Your task to perform on an android device: Clear the cart on amazon.com. Search for "usb-a to usb-b" on amazon.com, select the first entry, and add it to the cart. Image 0: 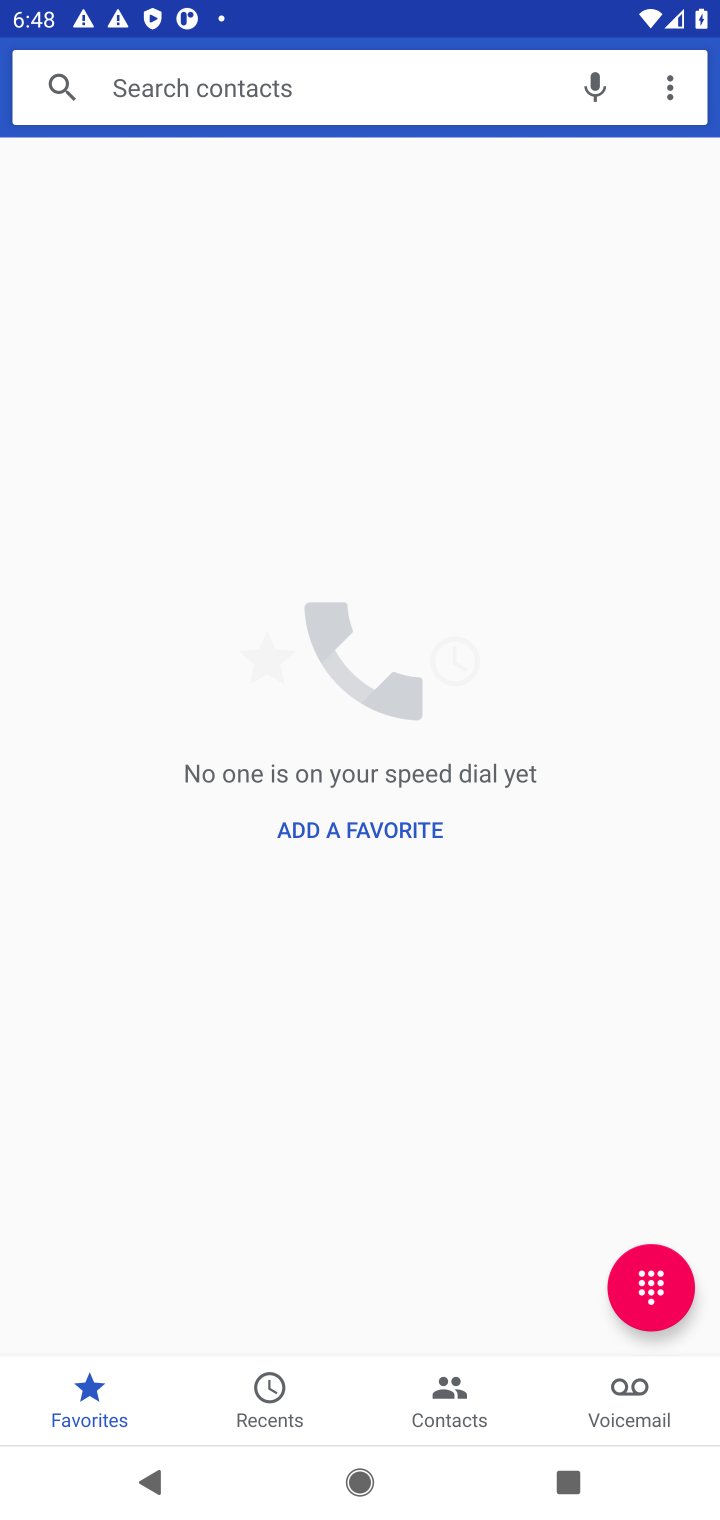
Step 0: press home button
Your task to perform on an android device: Clear the cart on amazon.com. Search for "usb-a to usb-b" on amazon.com, select the first entry, and add it to the cart. Image 1: 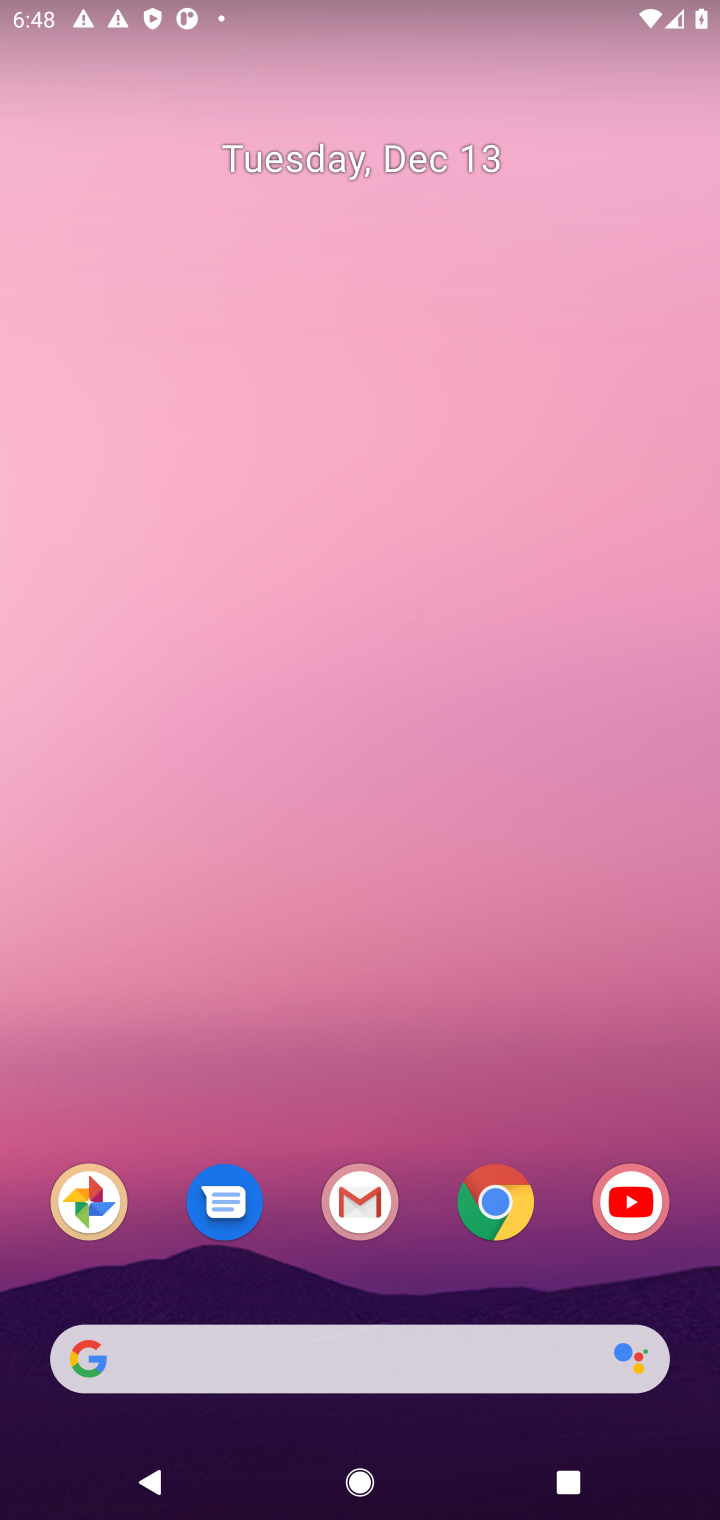
Step 1: click (497, 1194)
Your task to perform on an android device: Clear the cart on amazon.com. Search for "usb-a to usb-b" on amazon.com, select the first entry, and add it to the cart. Image 2: 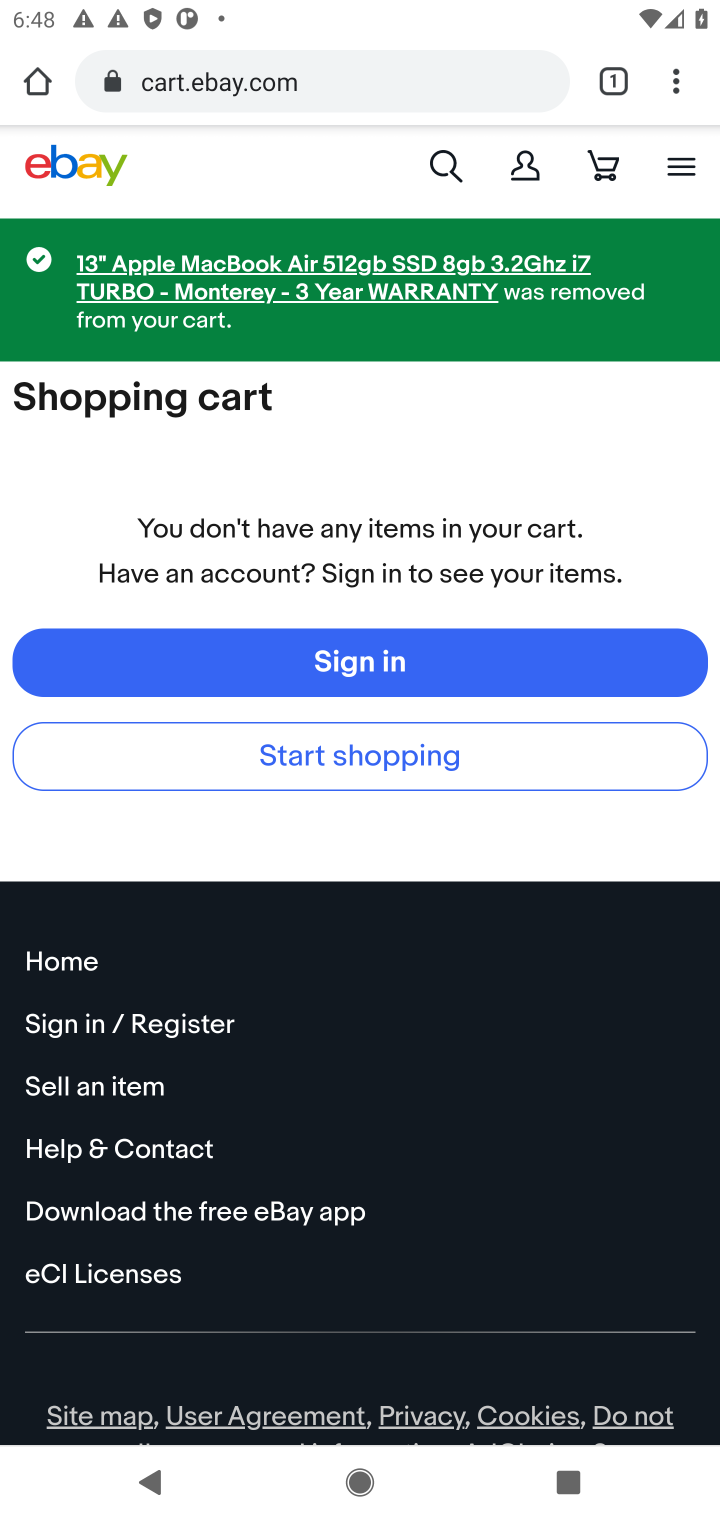
Step 2: click (230, 82)
Your task to perform on an android device: Clear the cart on amazon.com. Search for "usb-a to usb-b" on amazon.com, select the first entry, and add it to the cart. Image 3: 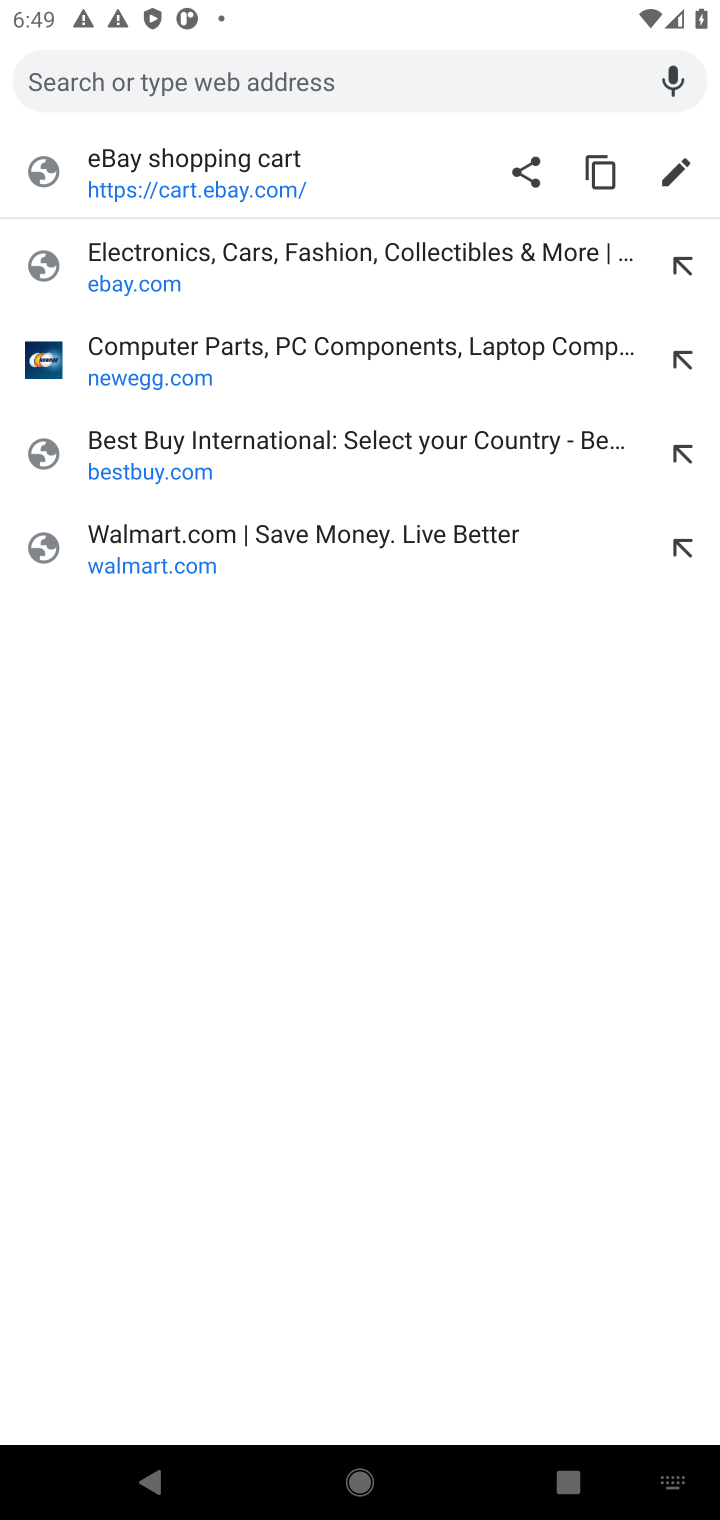
Step 3: type "amazon.com"
Your task to perform on an android device: Clear the cart on amazon.com. Search for "usb-a to usb-b" on amazon.com, select the first entry, and add it to the cart. Image 4: 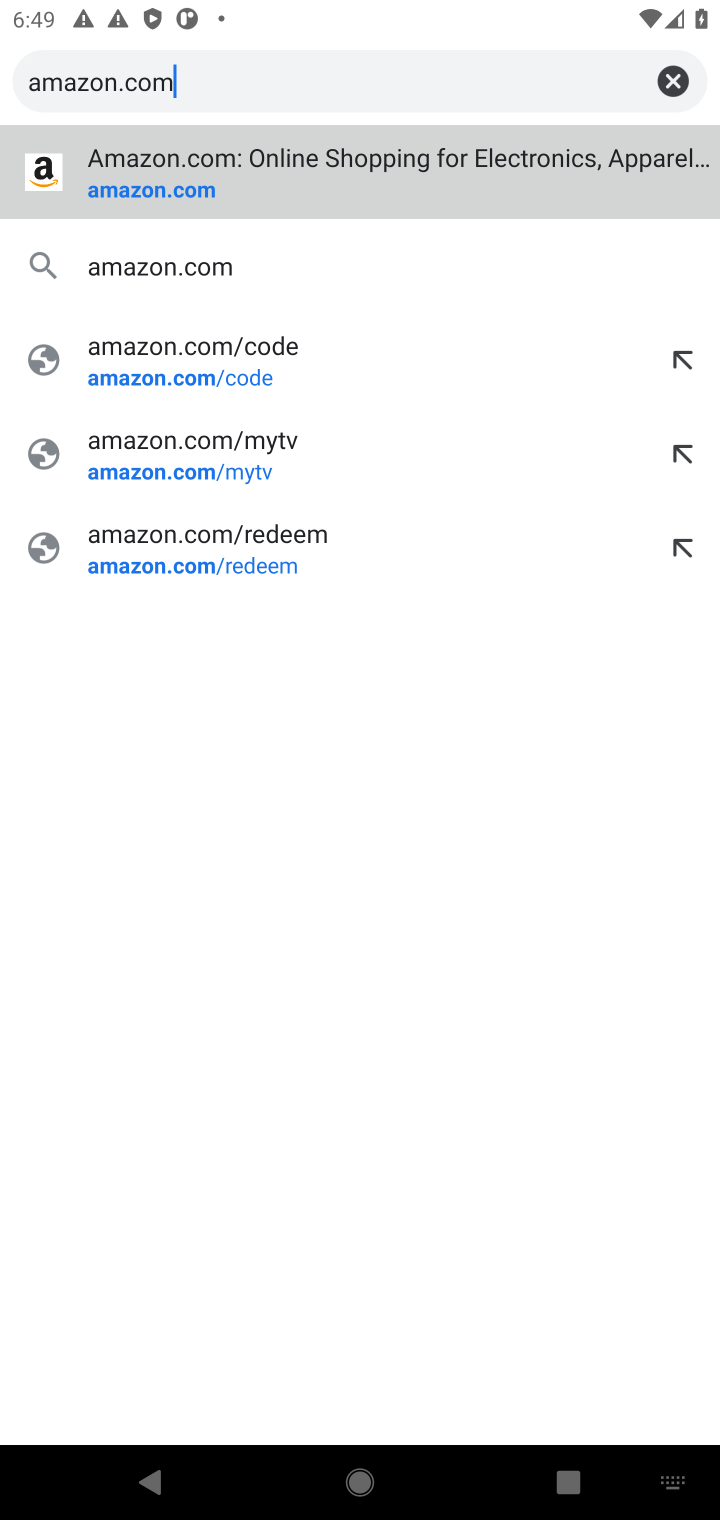
Step 4: click (174, 201)
Your task to perform on an android device: Clear the cart on amazon.com. Search for "usb-a to usb-b" on amazon.com, select the first entry, and add it to the cart. Image 5: 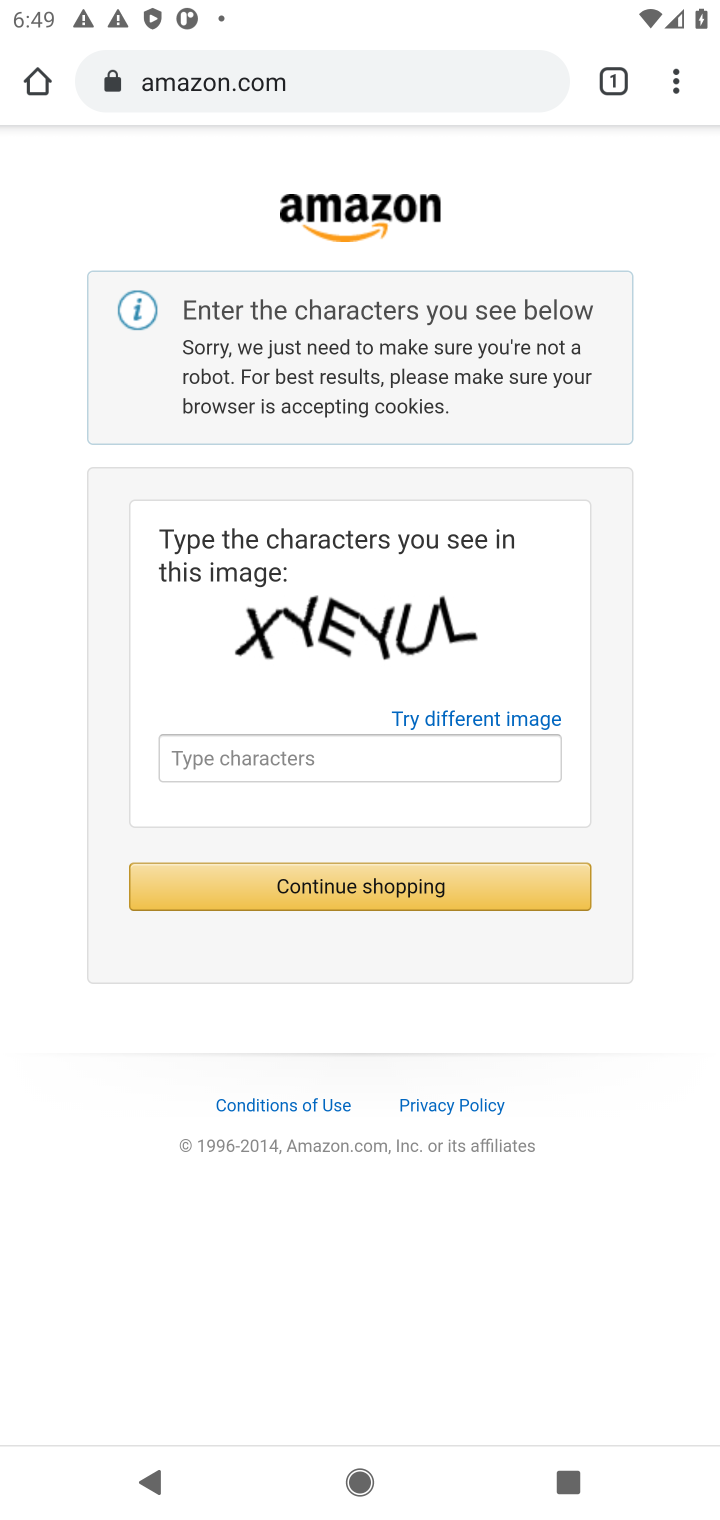
Step 5: click (290, 760)
Your task to perform on an android device: Clear the cart on amazon.com. Search for "usb-a to usb-b" on amazon.com, select the first entry, and add it to the cart. Image 6: 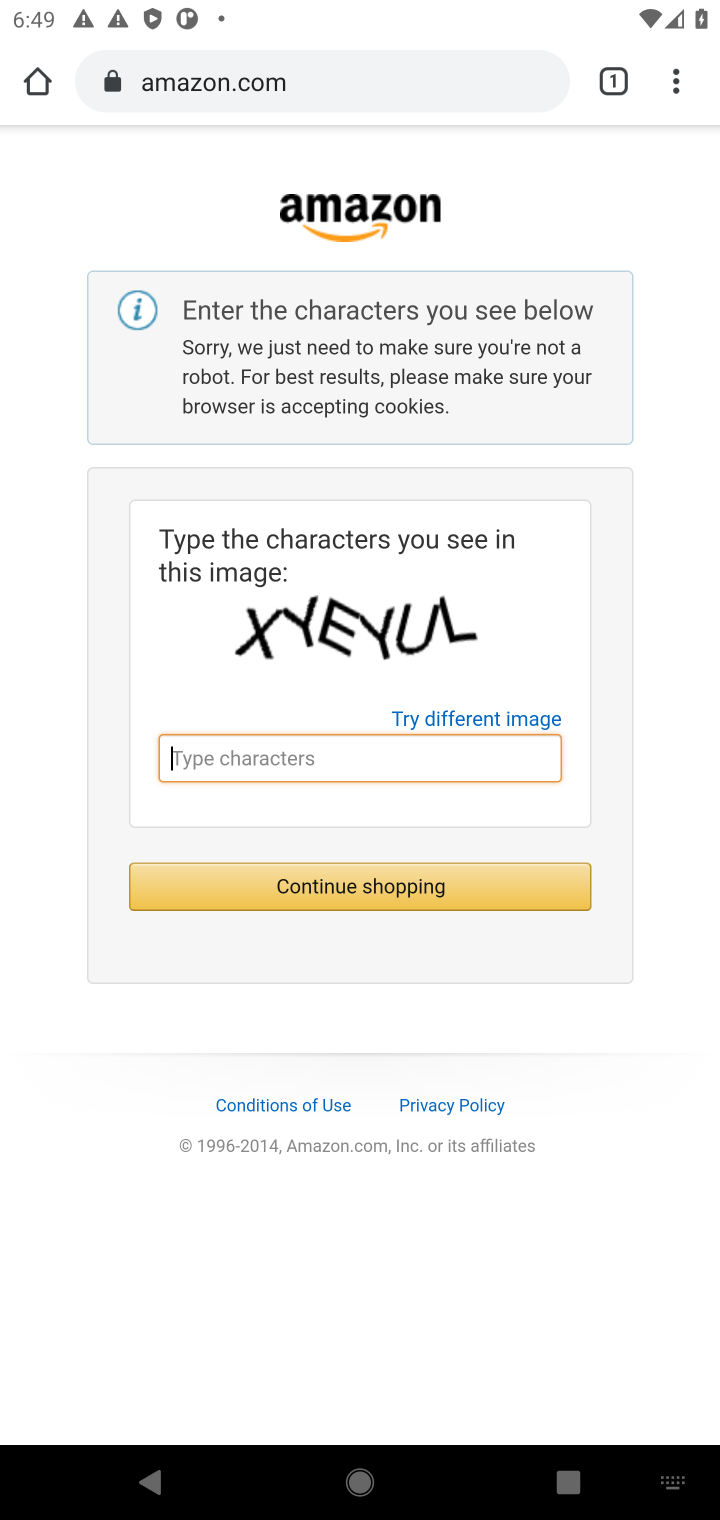
Step 6: type "XYEYUL"
Your task to perform on an android device: Clear the cart on amazon.com. Search for "usb-a to usb-b" on amazon.com, select the first entry, and add it to the cart. Image 7: 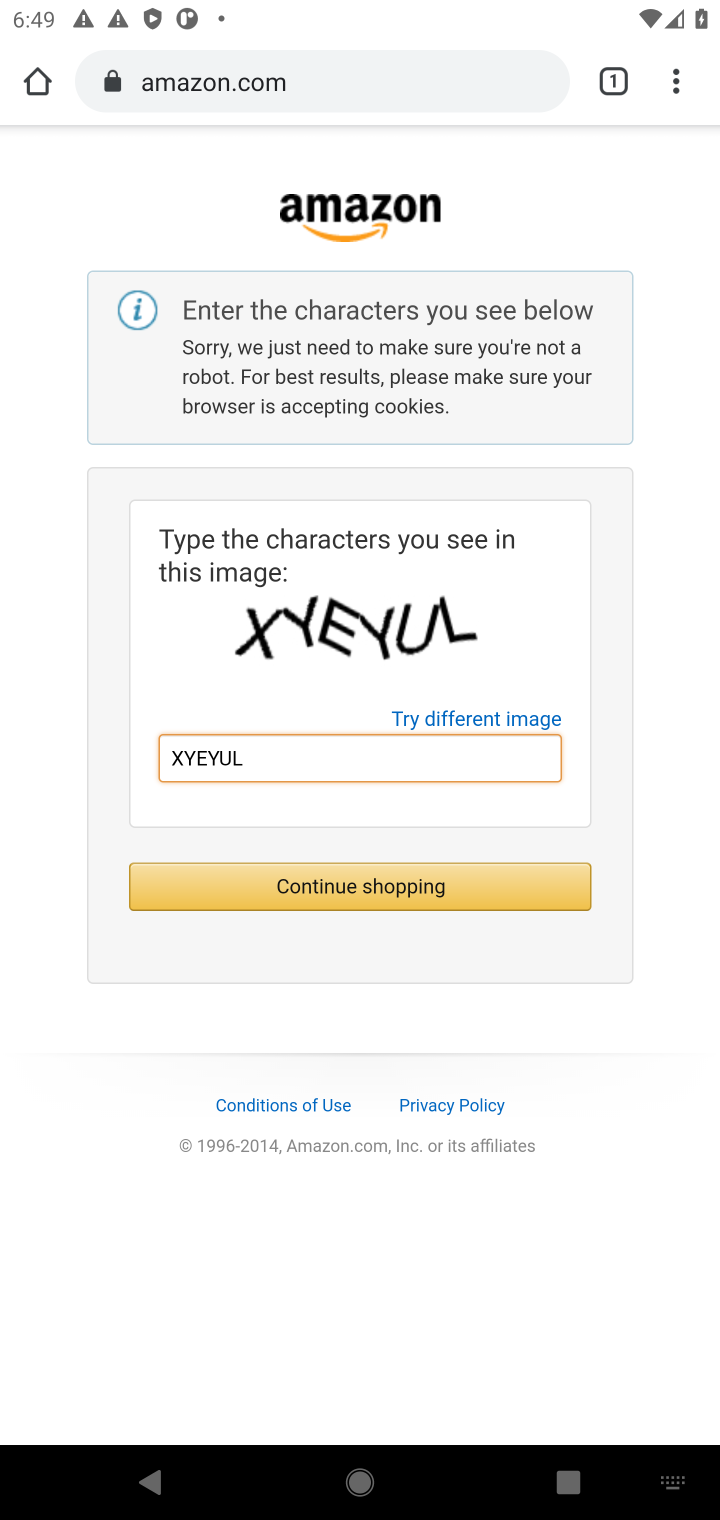
Step 7: click (376, 897)
Your task to perform on an android device: Clear the cart on amazon.com. Search for "usb-a to usb-b" on amazon.com, select the first entry, and add it to the cart. Image 8: 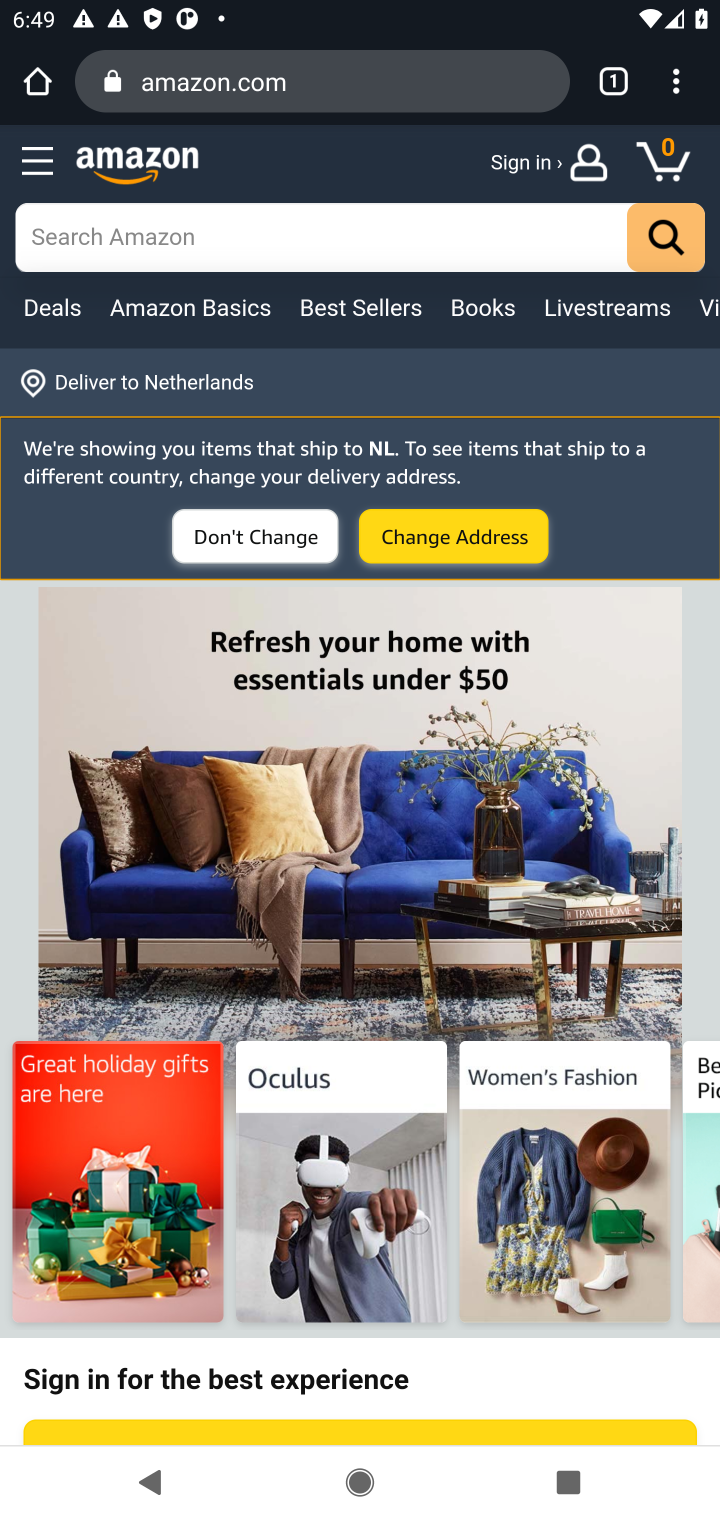
Step 8: click (665, 164)
Your task to perform on an android device: Clear the cart on amazon.com. Search for "usb-a to usb-b" on amazon.com, select the first entry, and add it to the cart. Image 9: 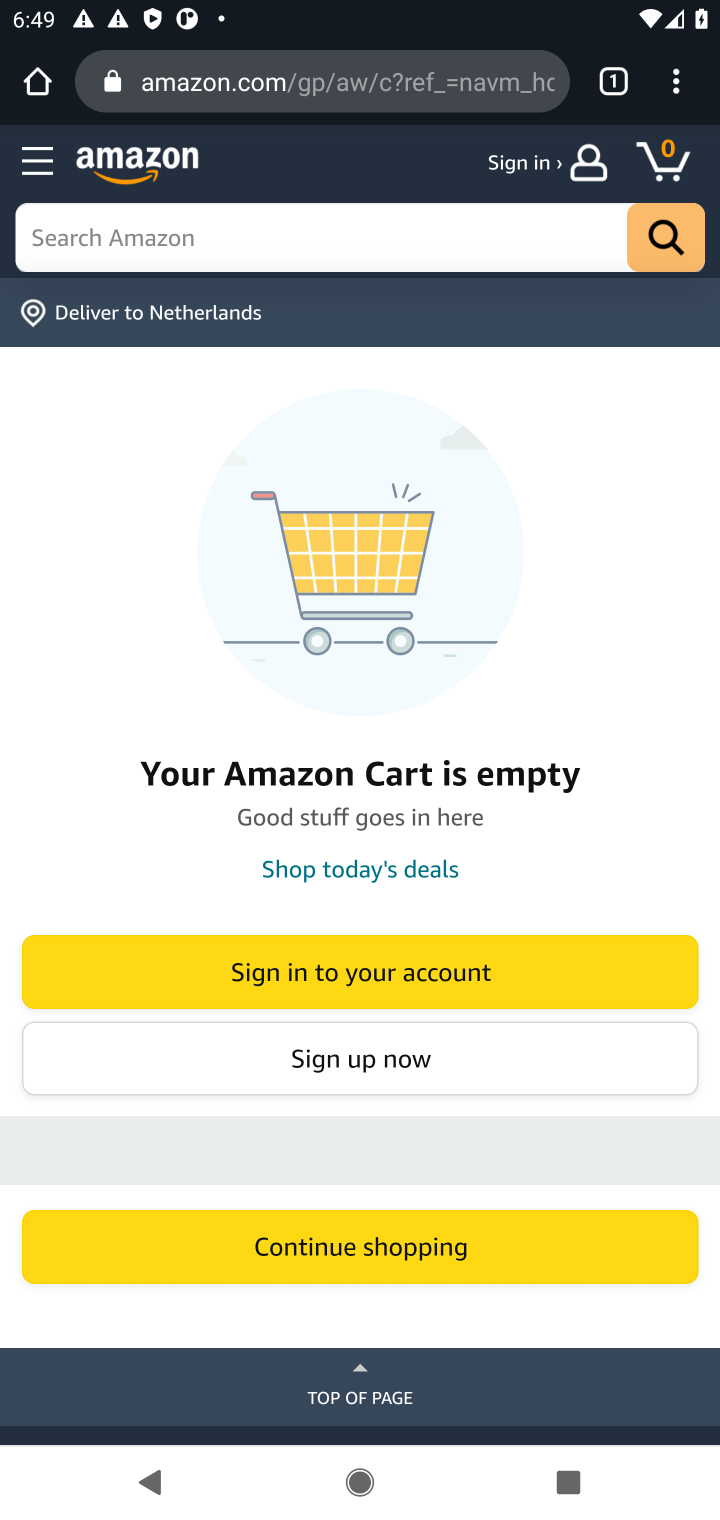
Step 9: click (142, 248)
Your task to perform on an android device: Clear the cart on amazon.com. Search for "usb-a to usb-b" on amazon.com, select the first entry, and add it to the cart. Image 10: 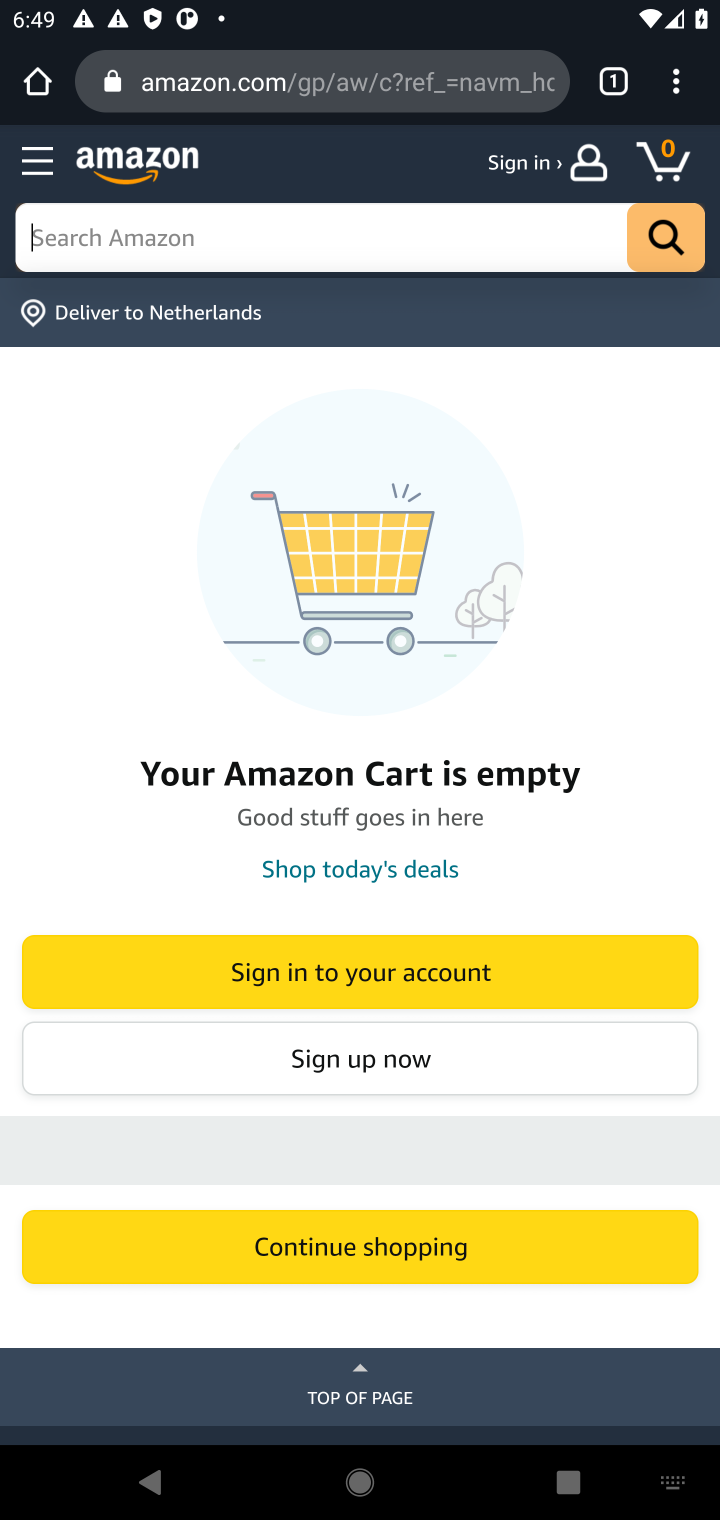
Step 10: type "usb-a to usb-b"
Your task to perform on an android device: Clear the cart on amazon.com. Search for "usb-a to usb-b" on amazon.com, select the first entry, and add it to the cart. Image 11: 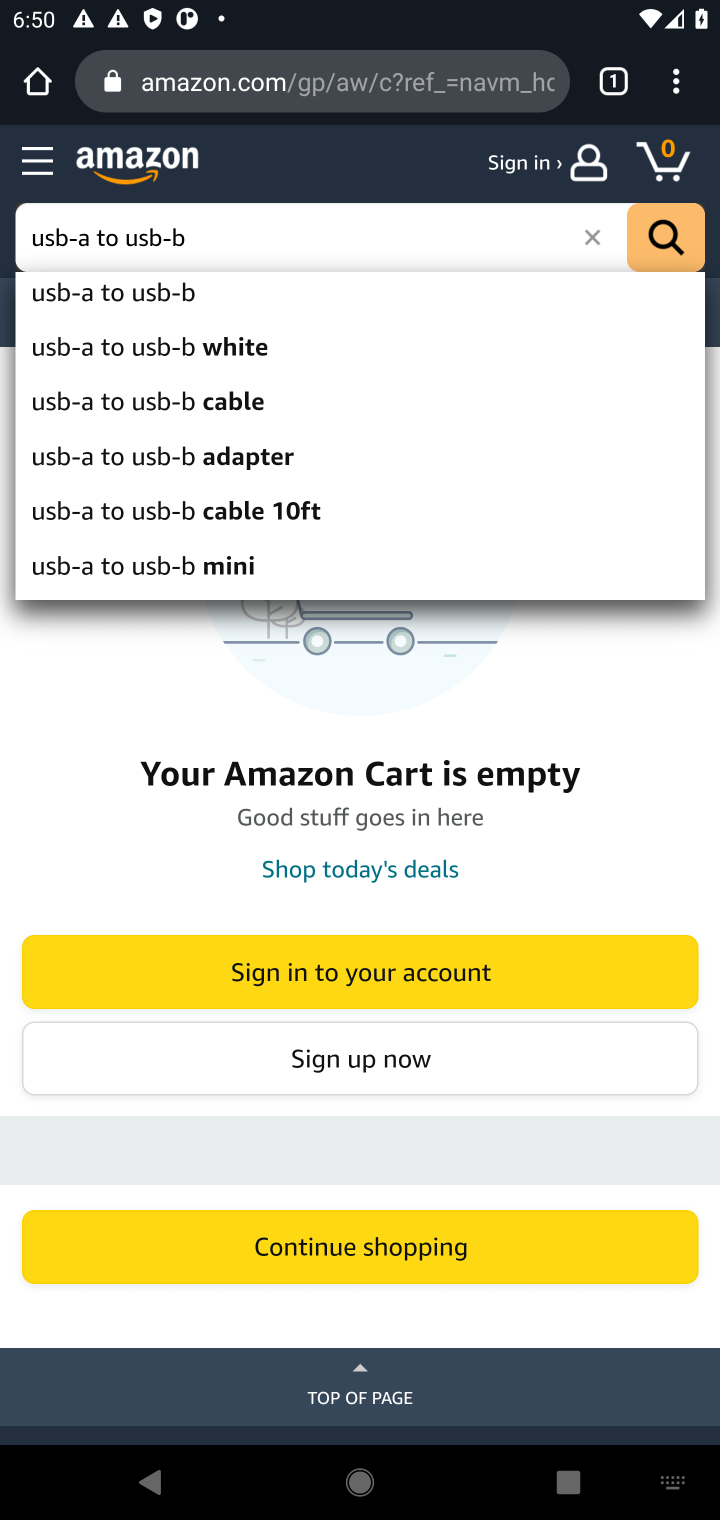
Step 11: click (157, 295)
Your task to perform on an android device: Clear the cart on amazon.com. Search for "usb-a to usb-b" on amazon.com, select the first entry, and add it to the cart. Image 12: 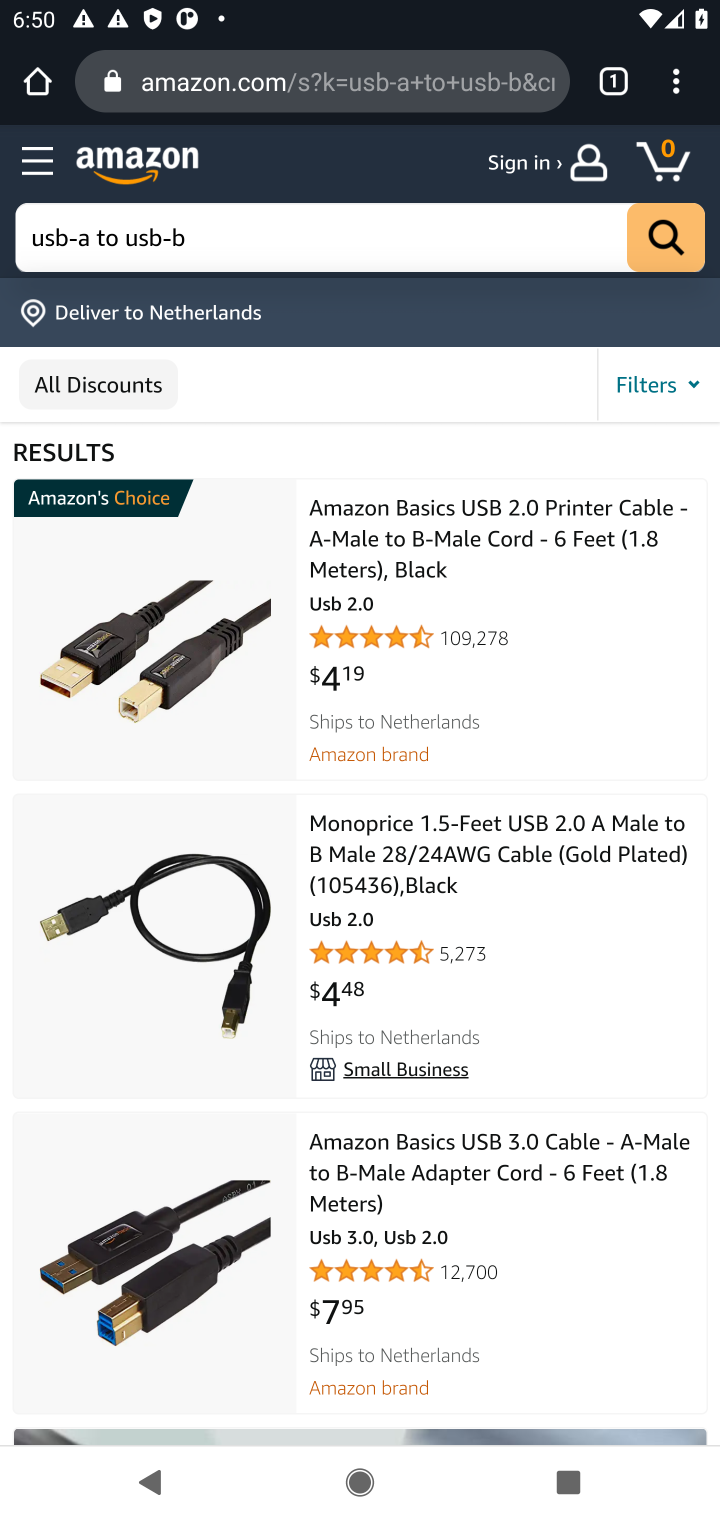
Step 12: click (380, 560)
Your task to perform on an android device: Clear the cart on amazon.com. Search for "usb-a to usb-b" on amazon.com, select the first entry, and add it to the cart. Image 13: 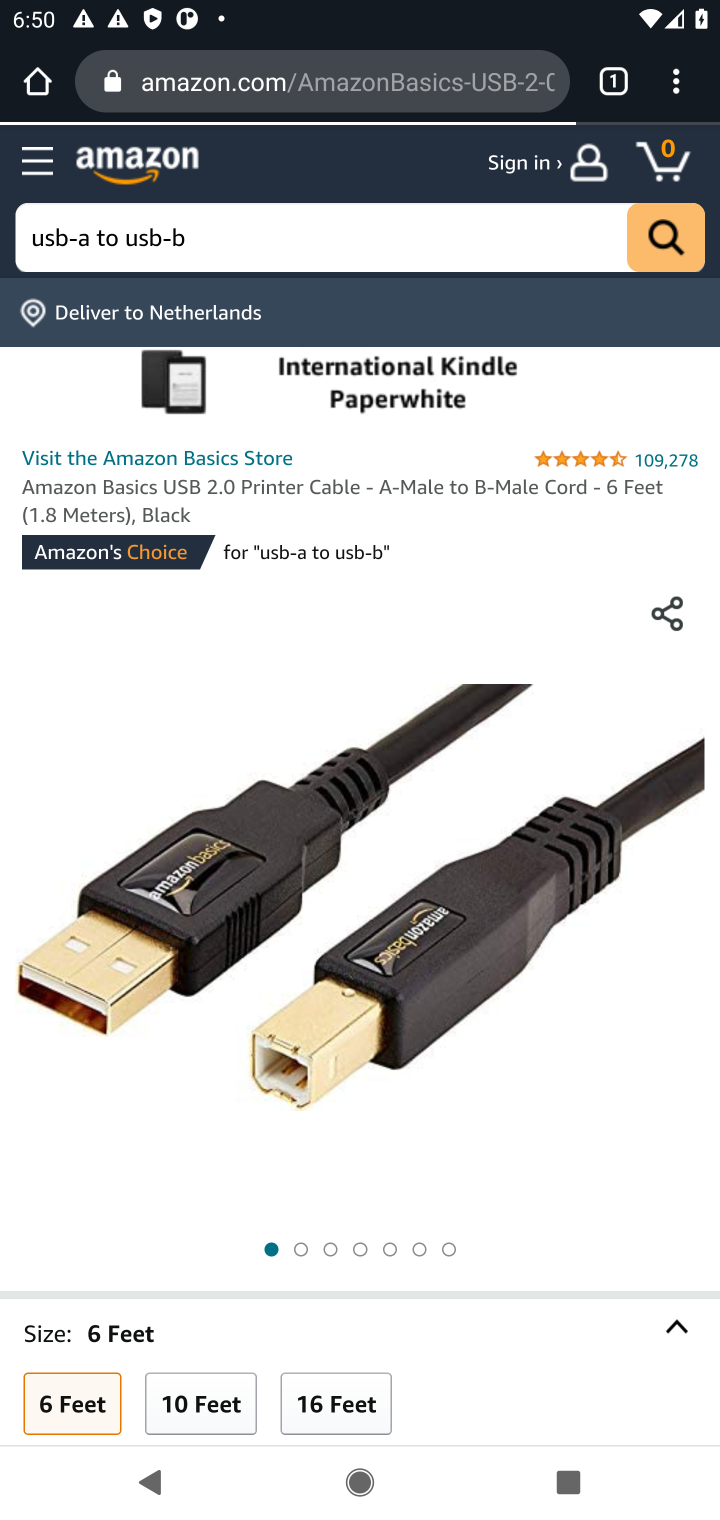
Step 13: drag from (345, 1145) to (348, 741)
Your task to perform on an android device: Clear the cart on amazon.com. Search for "usb-a to usb-b" on amazon.com, select the first entry, and add it to the cart. Image 14: 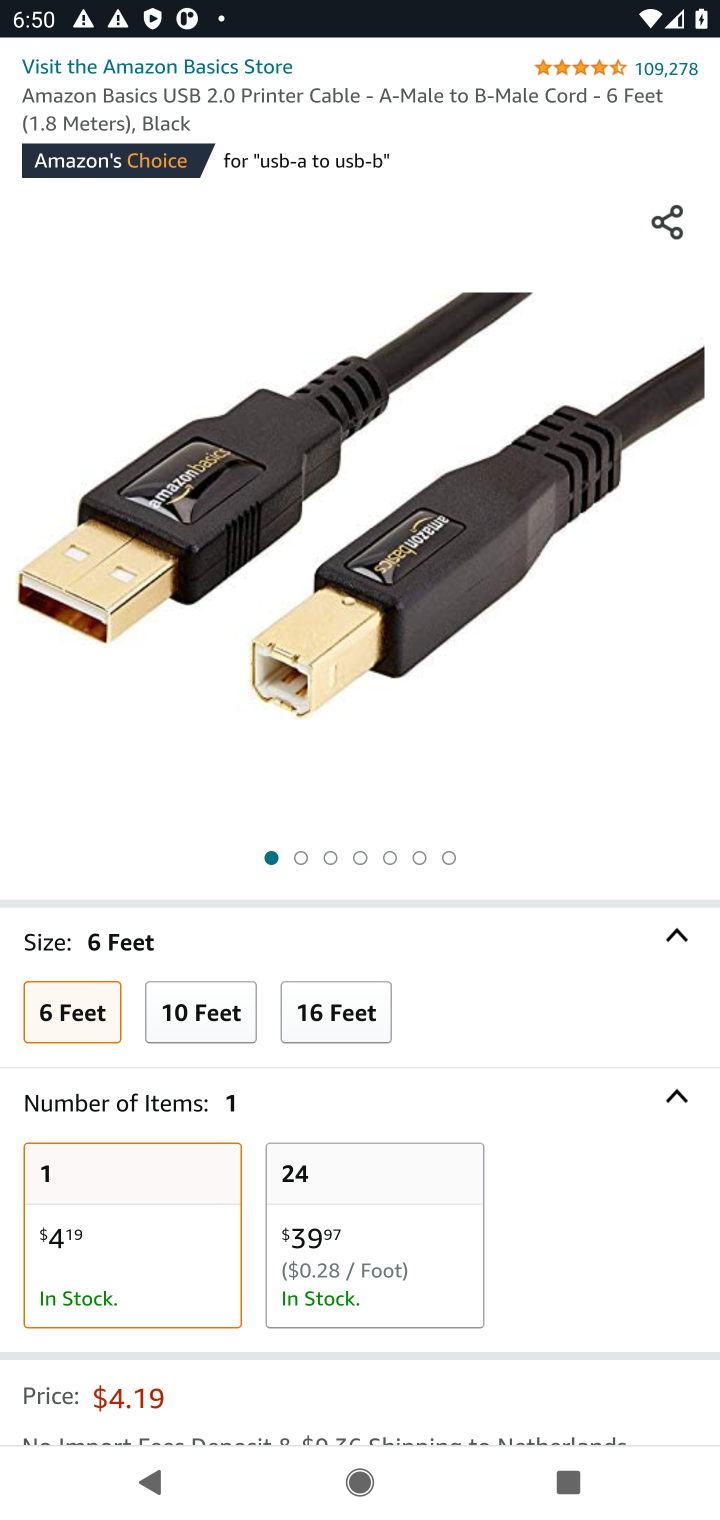
Step 14: drag from (362, 1194) to (367, 690)
Your task to perform on an android device: Clear the cart on amazon.com. Search for "usb-a to usb-b" on amazon.com, select the first entry, and add it to the cart. Image 15: 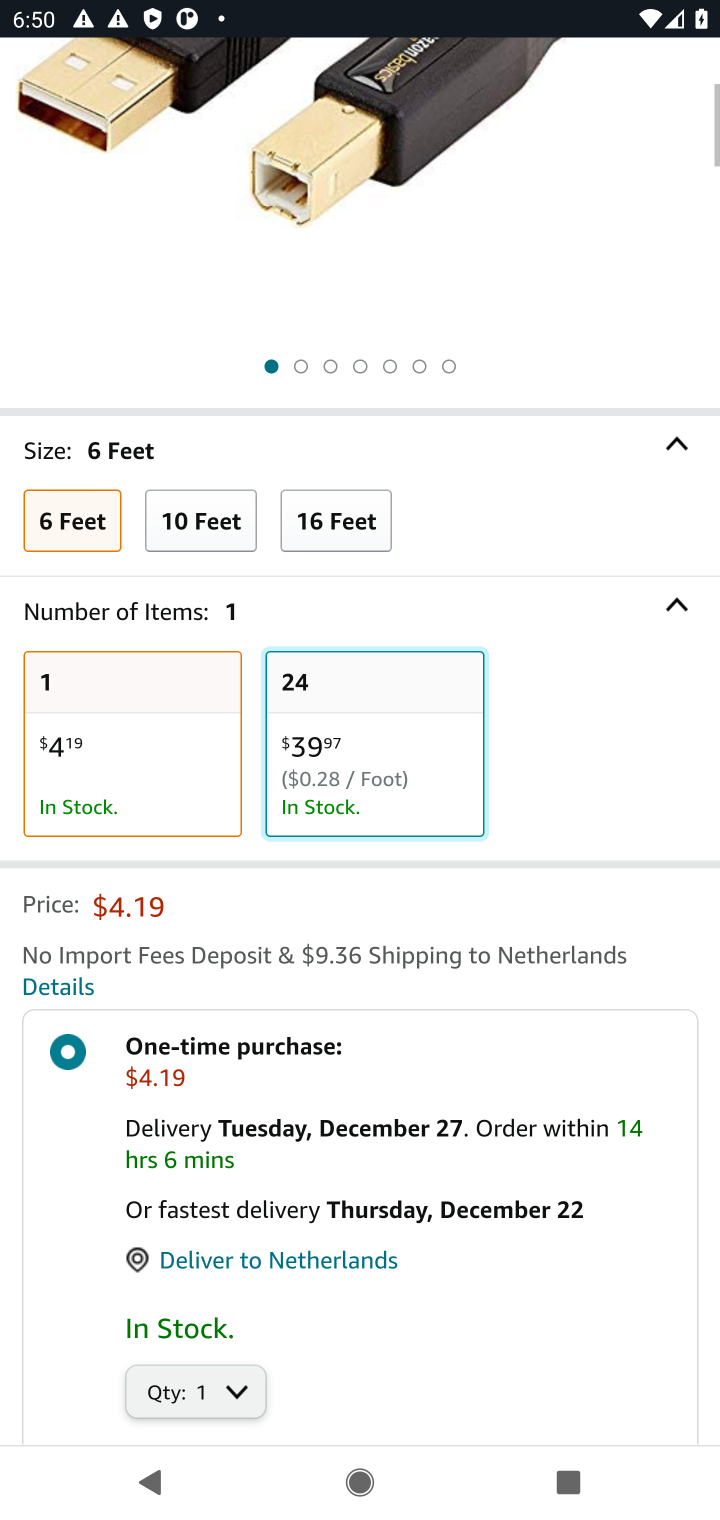
Step 15: drag from (375, 1182) to (364, 441)
Your task to perform on an android device: Clear the cart on amazon.com. Search for "usb-a to usb-b" on amazon.com, select the first entry, and add it to the cart. Image 16: 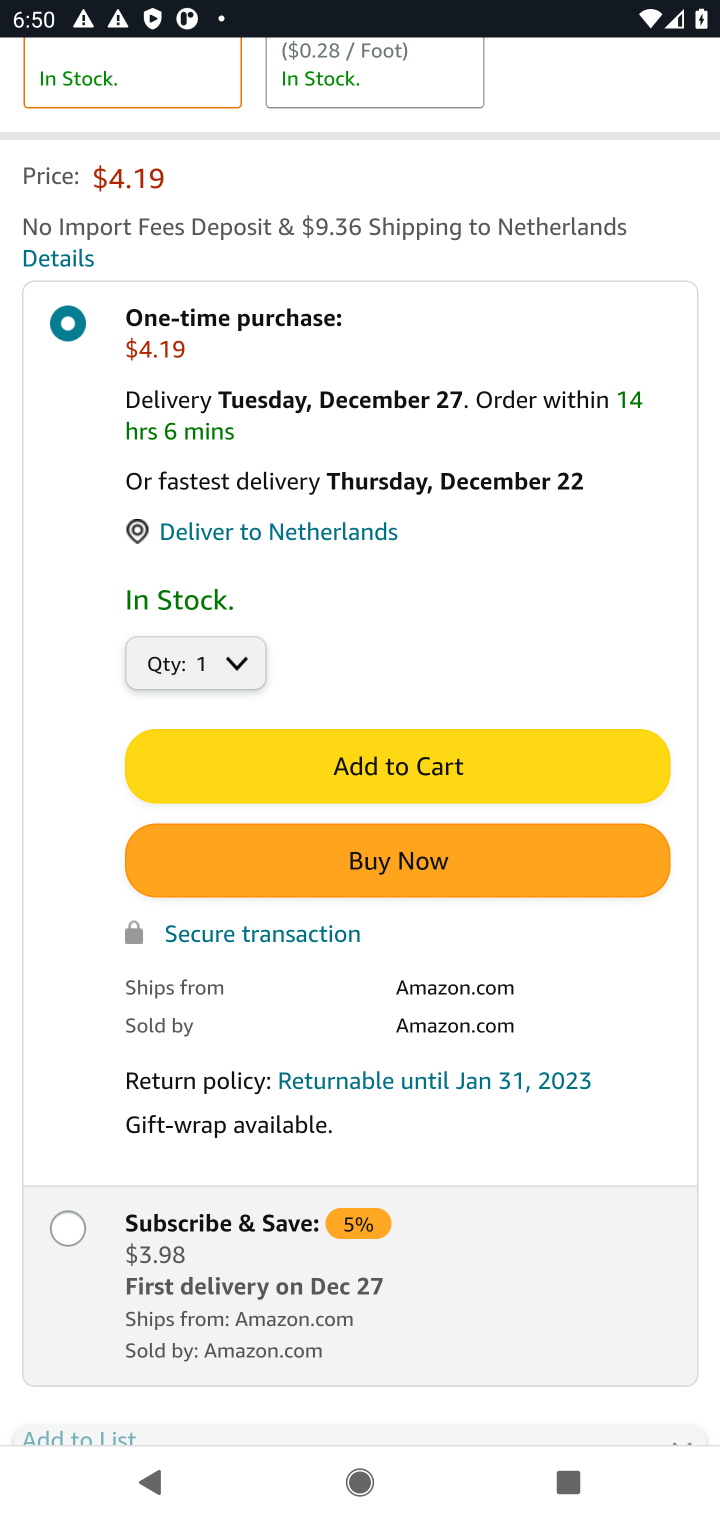
Step 16: click (373, 771)
Your task to perform on an android device: Clear the cart on amazon.com. Search for "usb-a to usb-b" on amazon.com, select the first entry, and add it to the cart. Image 17: 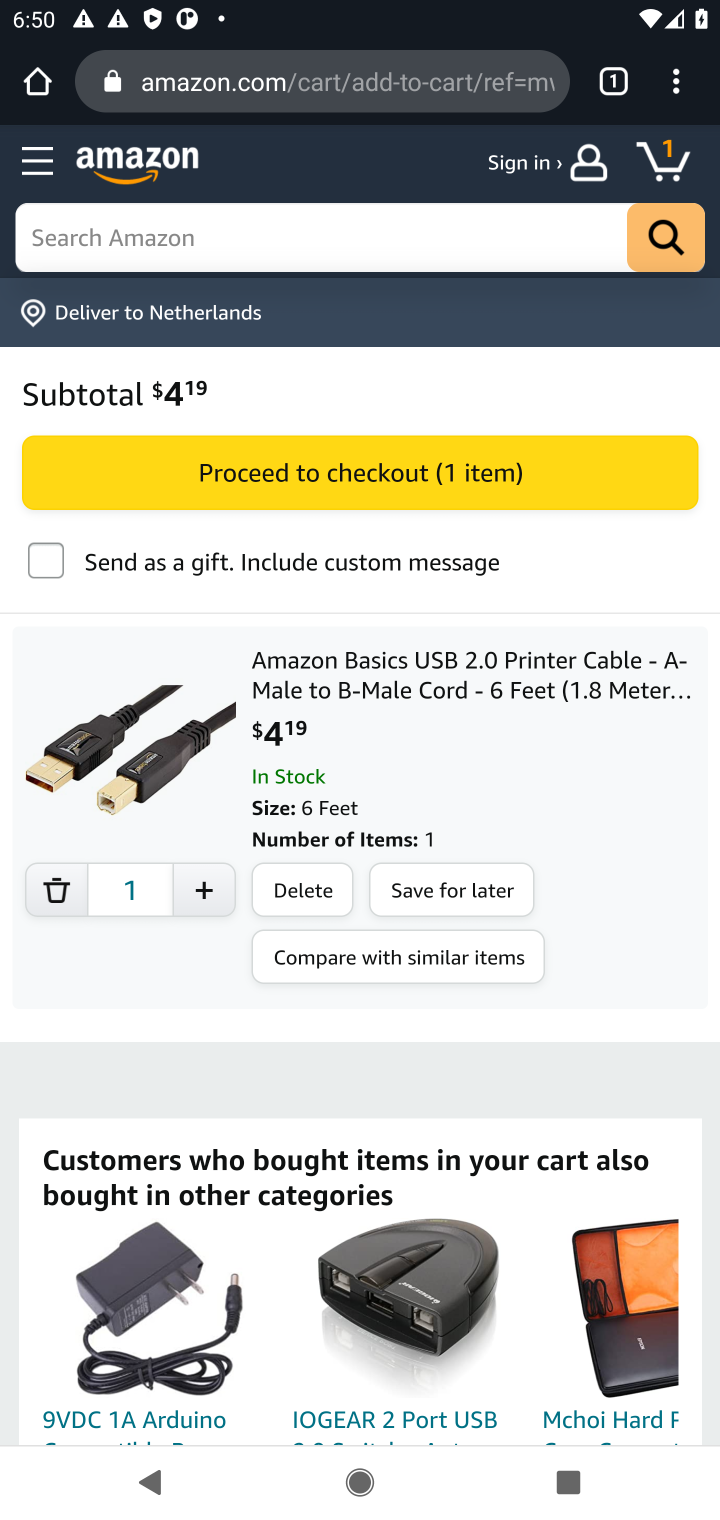
Step 17: task complete